Your task to perform on an android device: check out phone information Image 0: 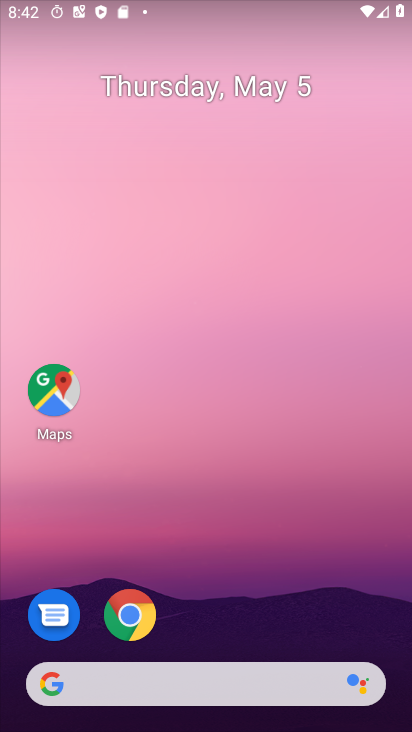
Step 0: drag from (225, 626) to (265, 64)
Your task to perform on an android device: check out phone information Image 1: 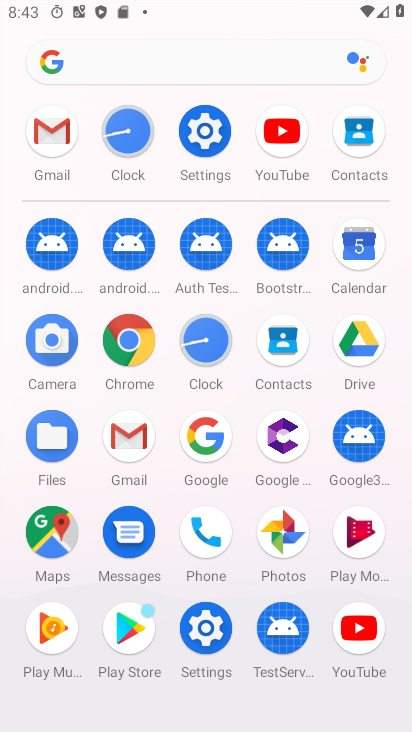
Step 1: click (208, 637)
Your task to perform on an android device: check out phone information Image 2: 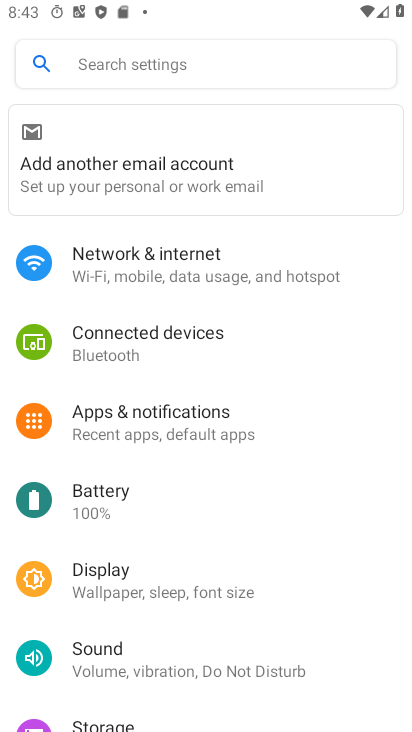
Step 2: drag from (181, 588) to (229, 281)
Your task to perform on an android device: check out phone information Image 3: 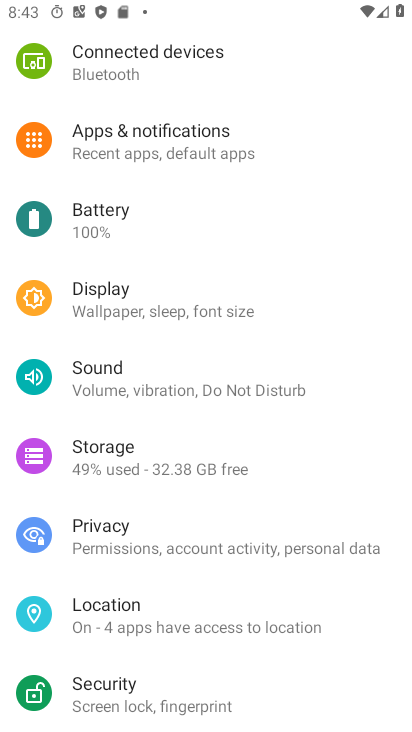
Step 3: drag from (136, 671) to (202, 423)
Your task to perform on an android device: check out phone information Image 4: 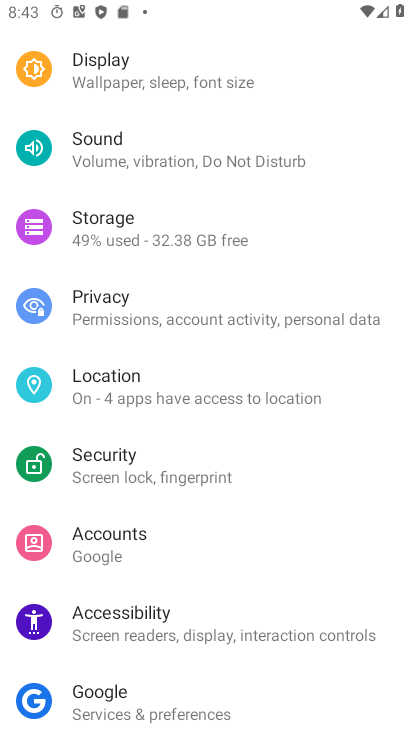
Step 4: drag from (143, 680) to (182, 405)
Your task to perform on an android device: check out phone information Image 5: 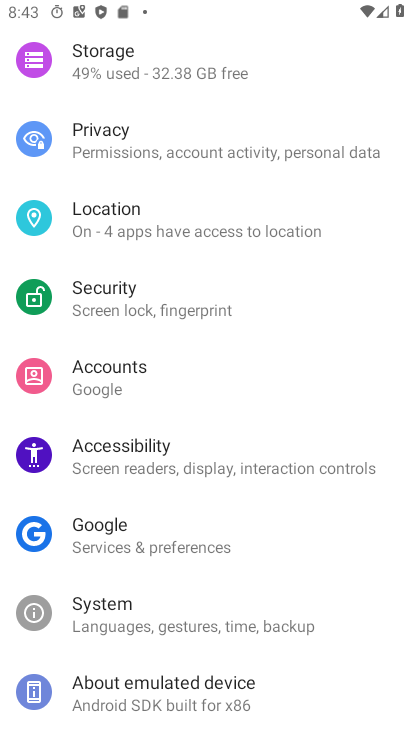
Step 5: click (148, 694)
Your task to perform on an android device: check out phone information Image 6: 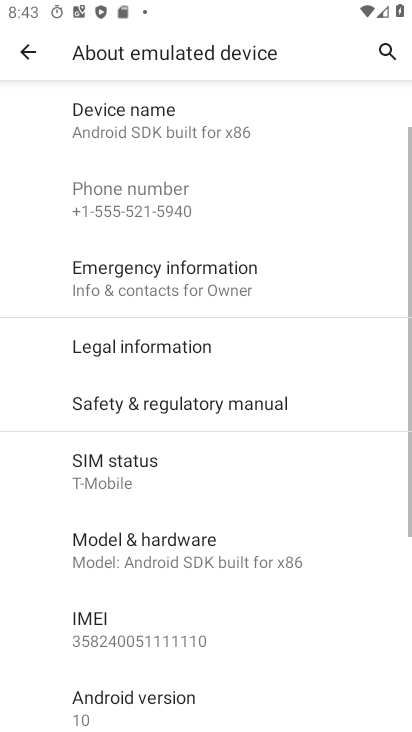
Step 6: click (184, 255)
Your task to perform on an android device: check out phone information Image 7: 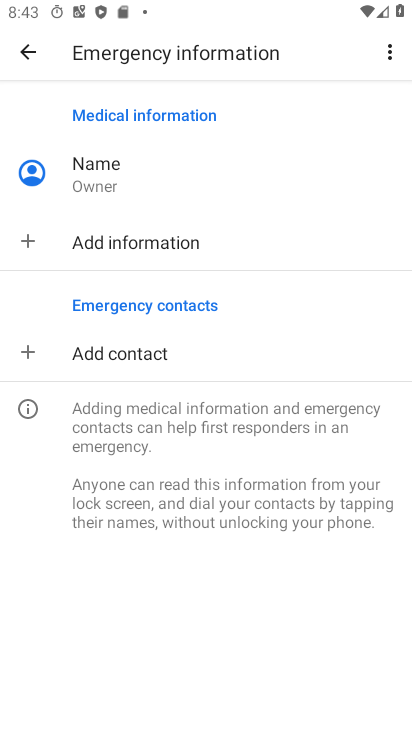
Step 7: task complete